Your task to perform on an android device: Go to wifi settings Image 0: 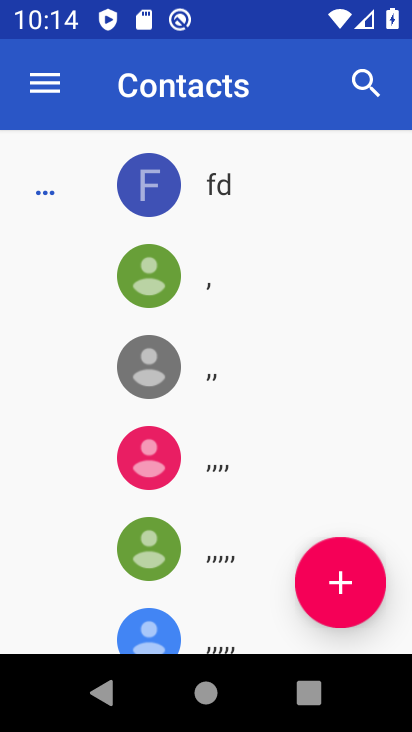
Step 0: press back button
Your task to perform on an android device: Go to wifi settings Image 1: 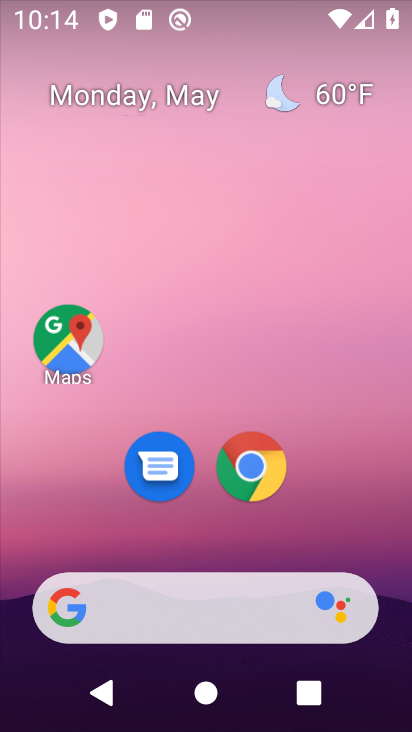
Step 1: drag from (247, 709) to (224, 271)
Your task to perform on an android device: Go to wifi settings Image 2: 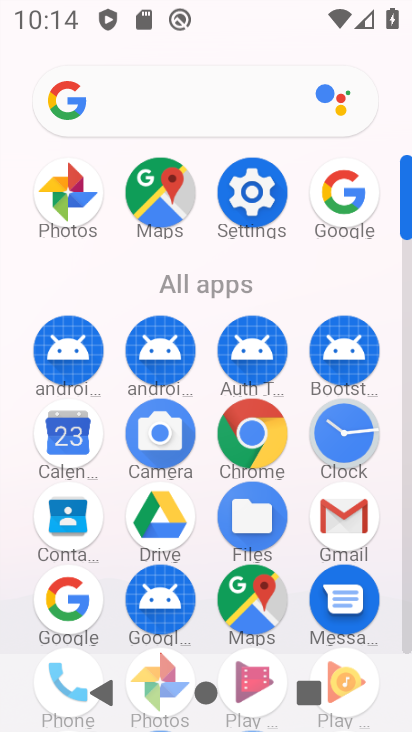
Step 2: click (236, 208)
Your task to perform on an android device: Go to wifi settings Image 3: 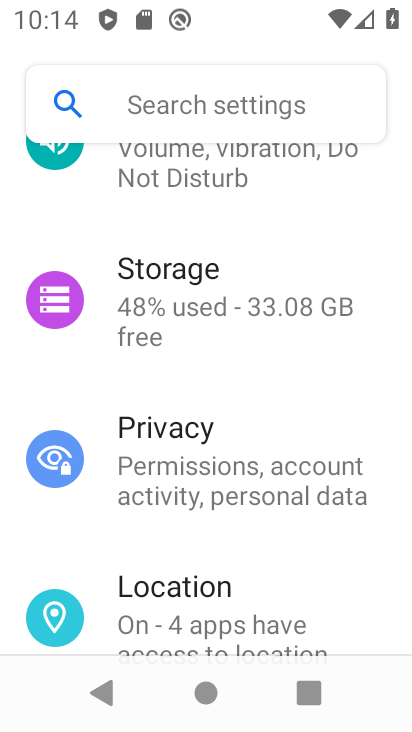
Step 3: drag from (176, 259) to (277, 628)
Your task to perform on an android device: Go to wifi settings Image 4: 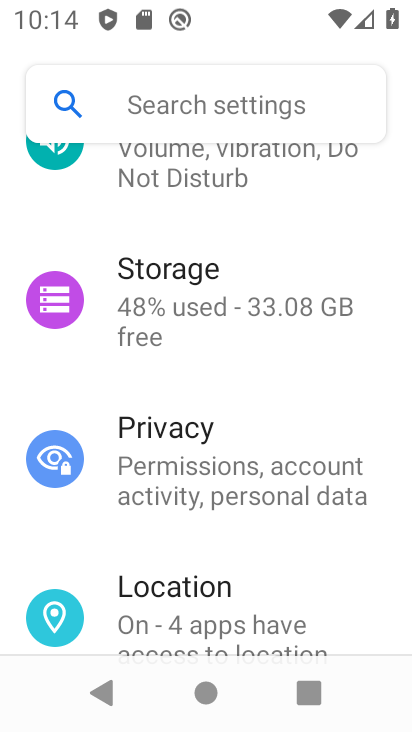
Step 4: drag from (215, 394) to (232, 504)
Your task to perform on an android device: Go to wifi settings Image 5: 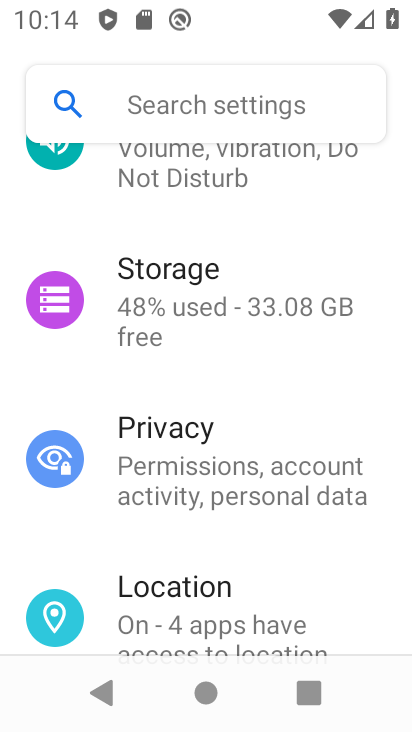
Step 5: drag from (181, 342) to (268, 600)
Your task to perform on an android device: Go to wifi settings Image 6: 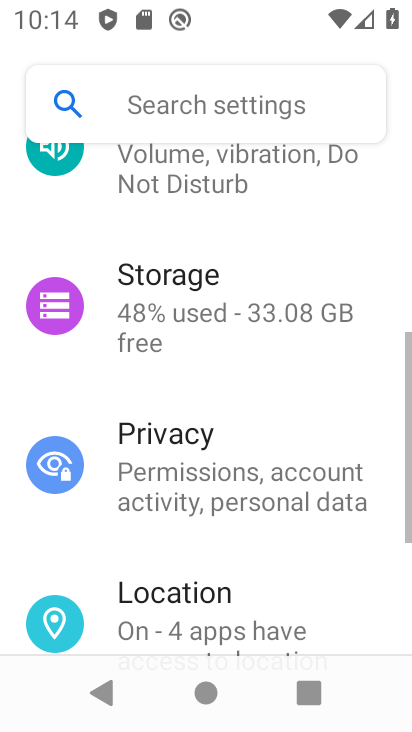
Step 6: drag from (228, 300) to (303, 651)
Your task to perform on an android device: Go to wifi settings Image 7: 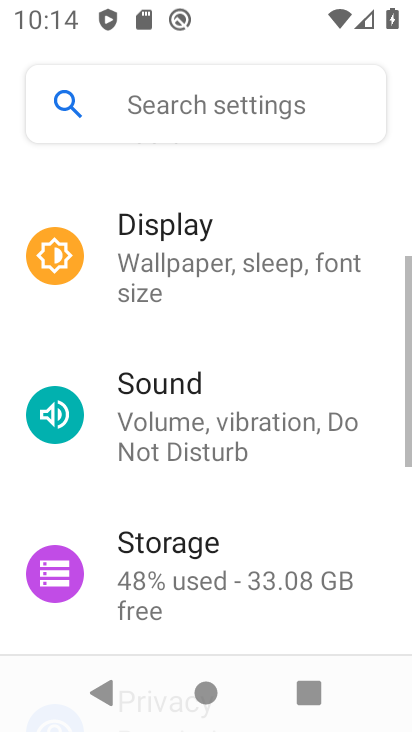
Step 7: drag from (232, 298) to (260, 548)
Your task to perform on an android device: Go to wifi settings Image 8: 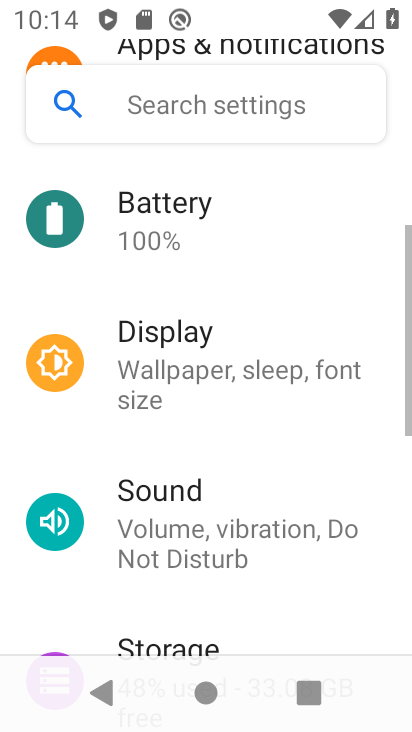
Step 8: drag from (229, 307) to (250, 552)
Your task to perform on an android device: Go to wifi settings Image 9: 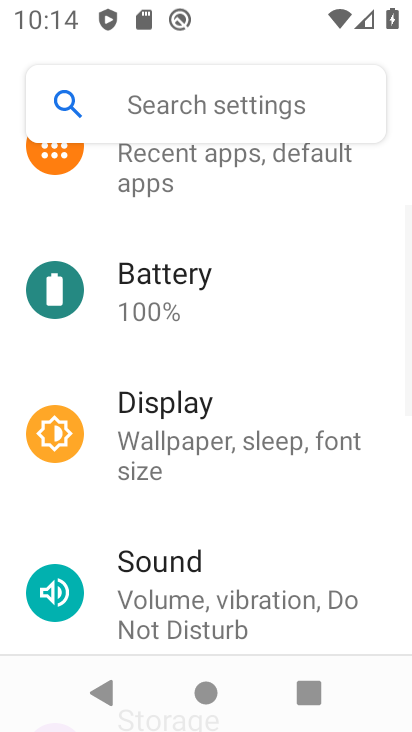
Step 9: drag from (204, 305) to (218, 417)
Your task to perform on an android device: Go to wifi settings Image 10: 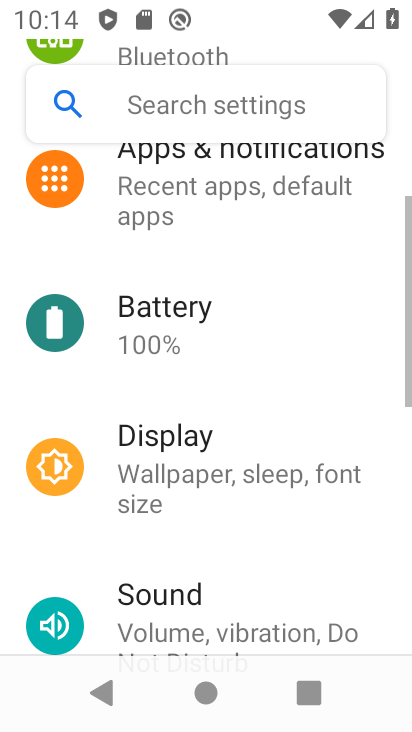
Step 10: drag from (203, 254) to (242, 502)
Your task to perform on an android device: Go to wifi settings Image 11: 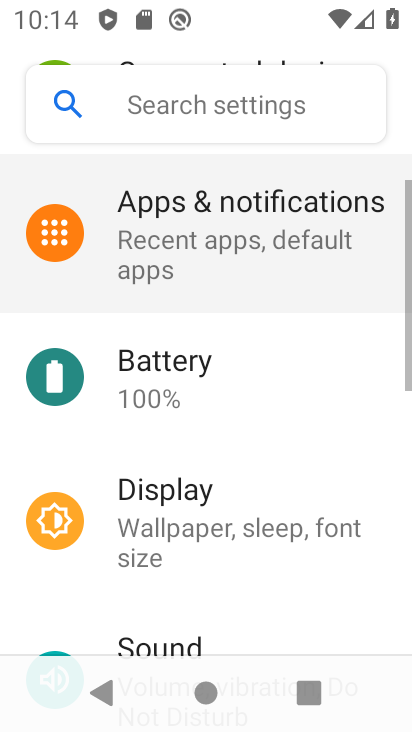
Step 11: drag from (203, 312) to (220, 501)
Your task to perform on an android device: Go to wifi settings Image 12: 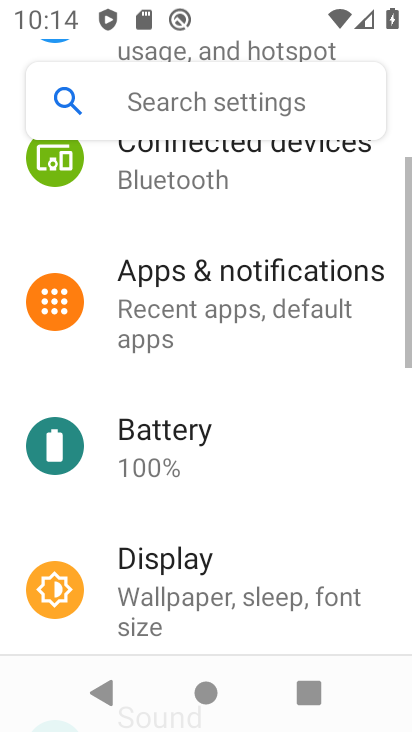
Step 12: drag from (179, 231) to (223, 473)
Your task to perform on an android device: Go to wifi settings Image 13: 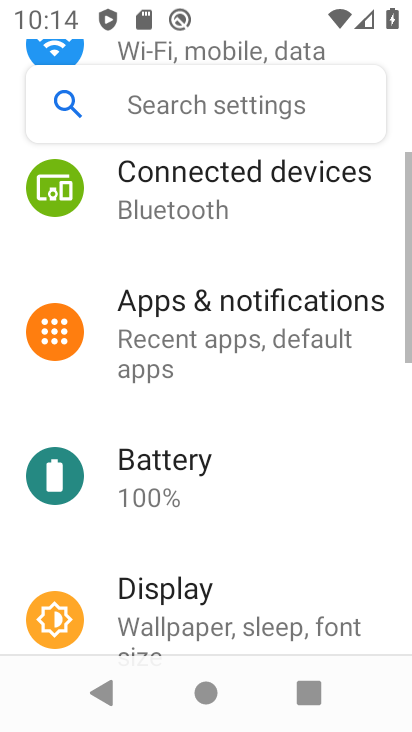
Step 13: drag from (220, 274) to (255, 544)
Your task to perform on an android device: Go to wifi settings Image 14: 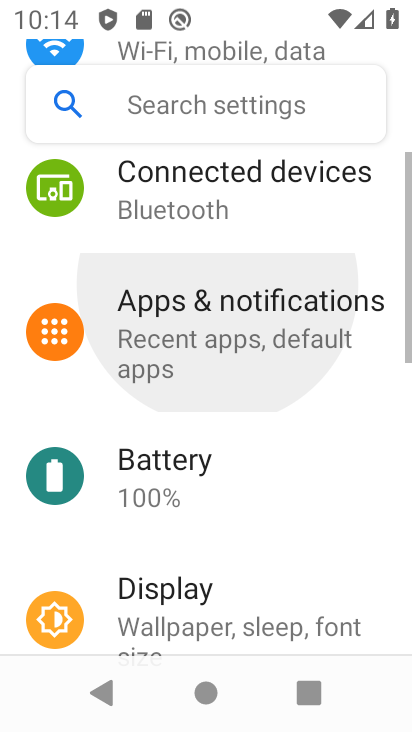
Step 14: drag from (235, 222) to (261, 635)
Your task to perform on an android device: Go to wifi settings Image 15: 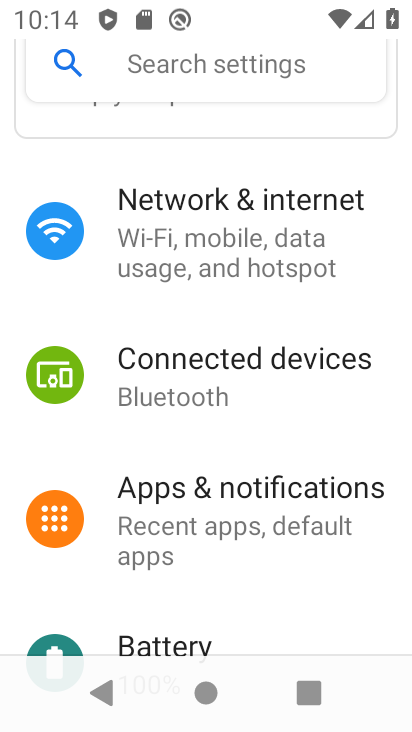
Step 15: click (218, 243)
Your task to perform on an android device: Go to wifi settings Image 16: 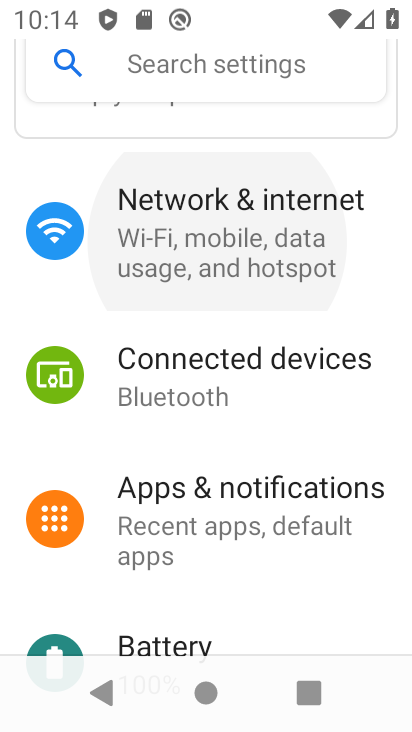
Step 16: click (218, 243)
Your task to perform on an android device: Go to wifi settings Image 17: 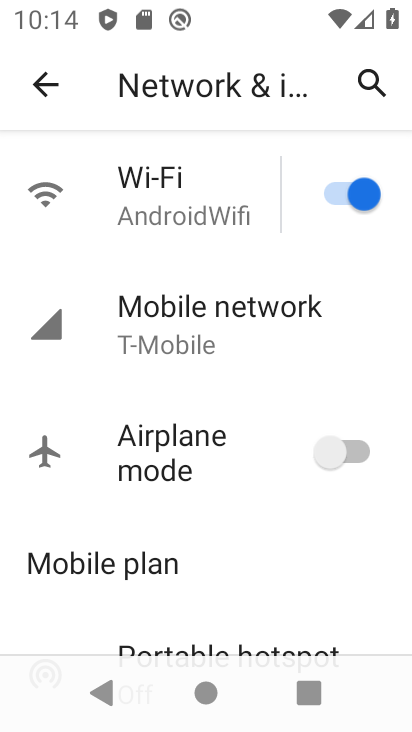
Step 17: task complete